Your task to perform on an android device: Open the phone app and click the voicemail tab. Image 0: 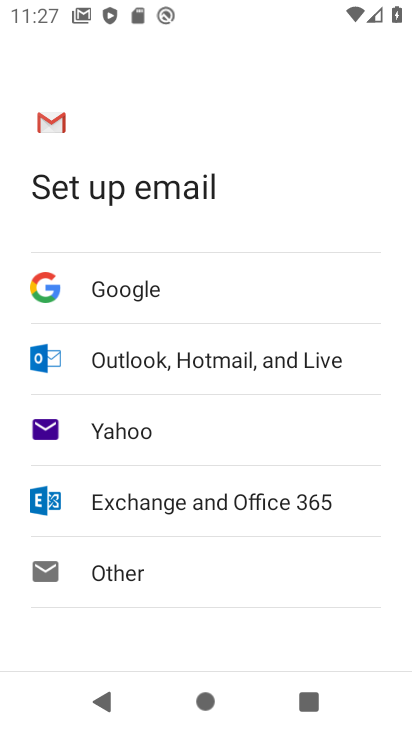
Step 0: press home button
Your task to perform on an android device: Open the phone app and click the voicemail tab. Image 1: 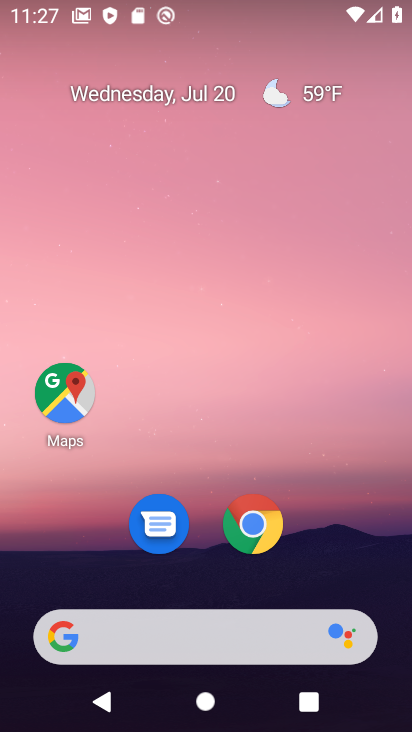
Step 1: drag from (174, 629) to (314, 52)
Your task to perform on an android device: Open the phone app and click the voicemail tab. Image 2: 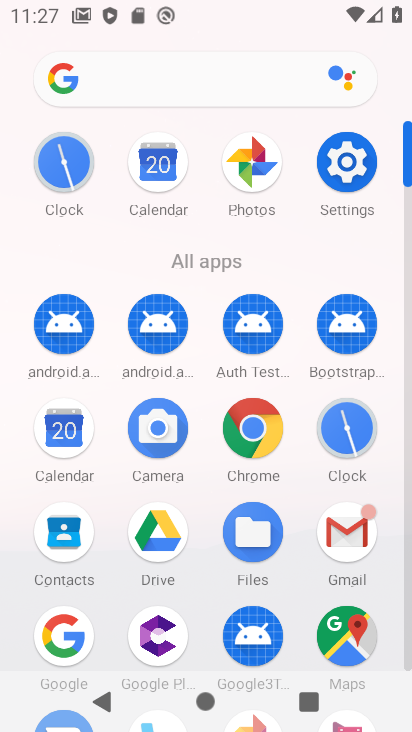
Step 2: drag from (197, 582) to (277, 246)
Your task to perform on an android device: Open the phone app and click the voicemail tab. Image 3: 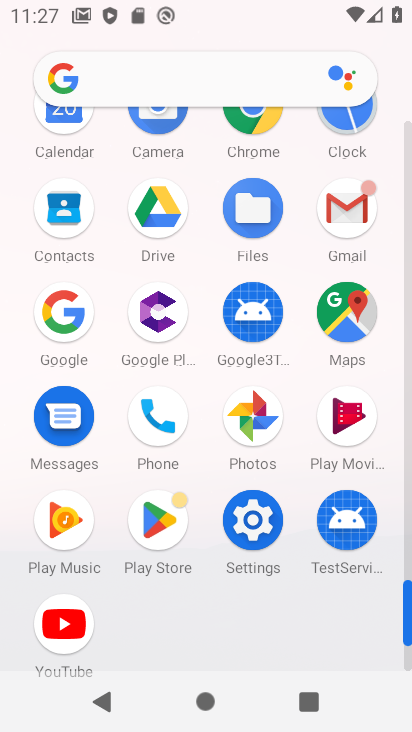
Step 3: click (161, 423)
Your task to perform on an android device: Open the phone app and click the voicemail tab. Image 4: 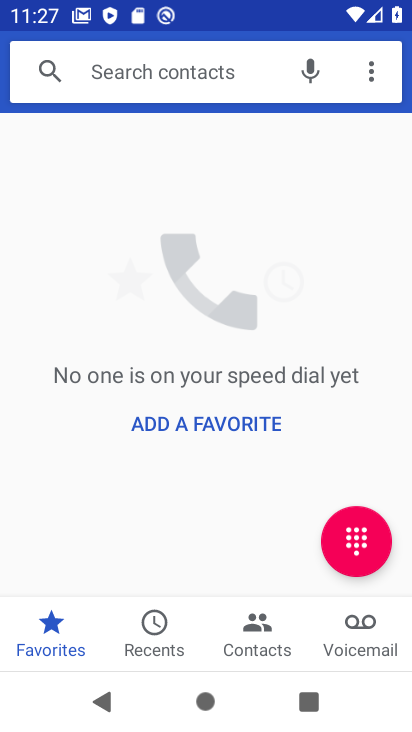
Step 4: click (358, 640)
Your task to perform on an android device: Open the phone app and click the voicemail tab. Image 5: 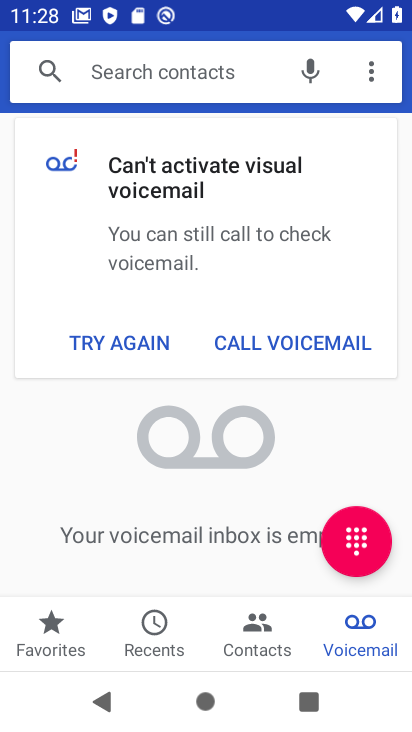
Step 5: task complete